Your task to perform on an android device: Open the map Image 0: 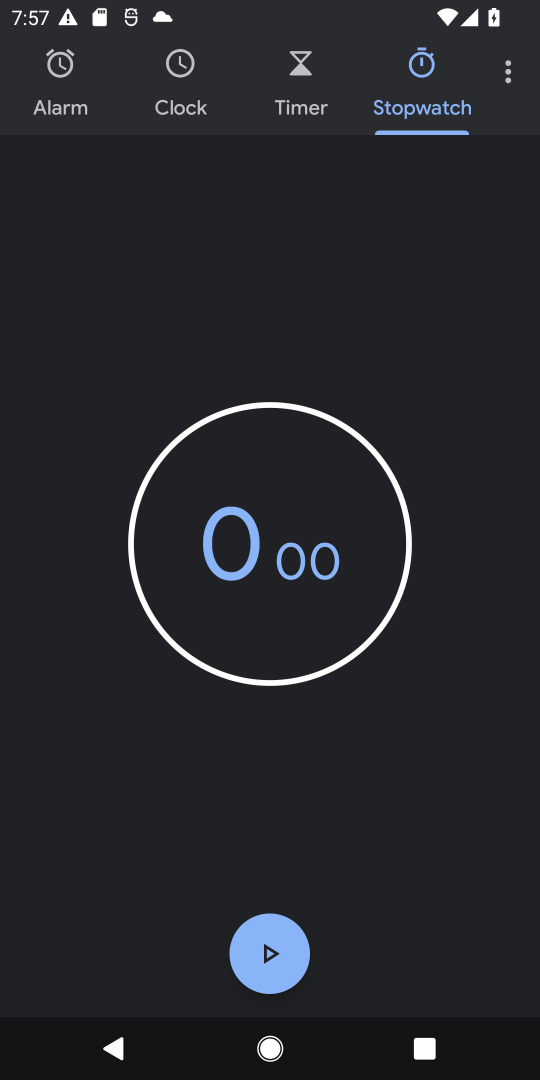
Step 0: press home button
Your task to perform on an android device: Open the map Image 1: 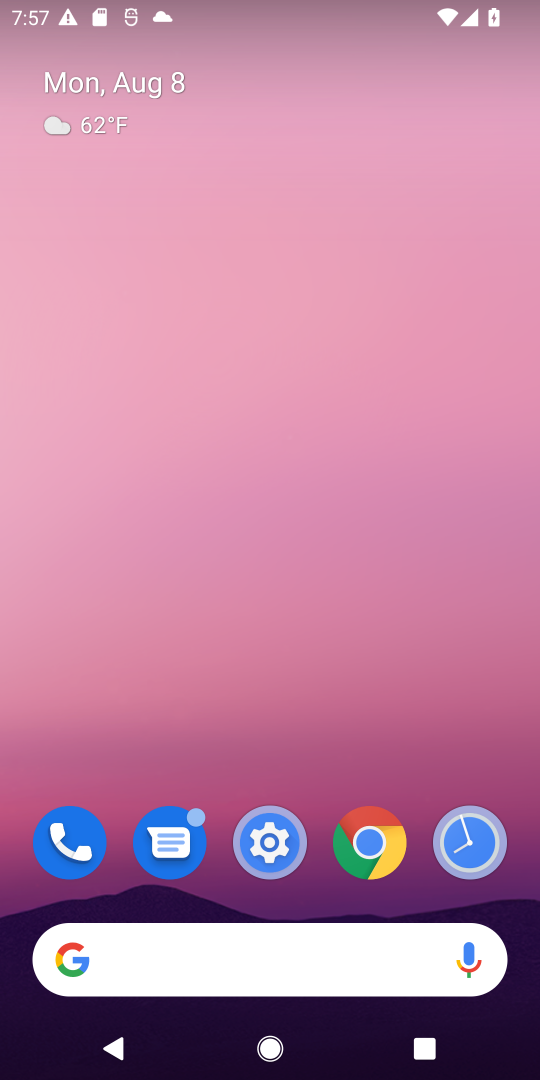
Step 1: drag from (271, 721) to (350, 0)
Your task to perform on an android device: Open the map Image 2: 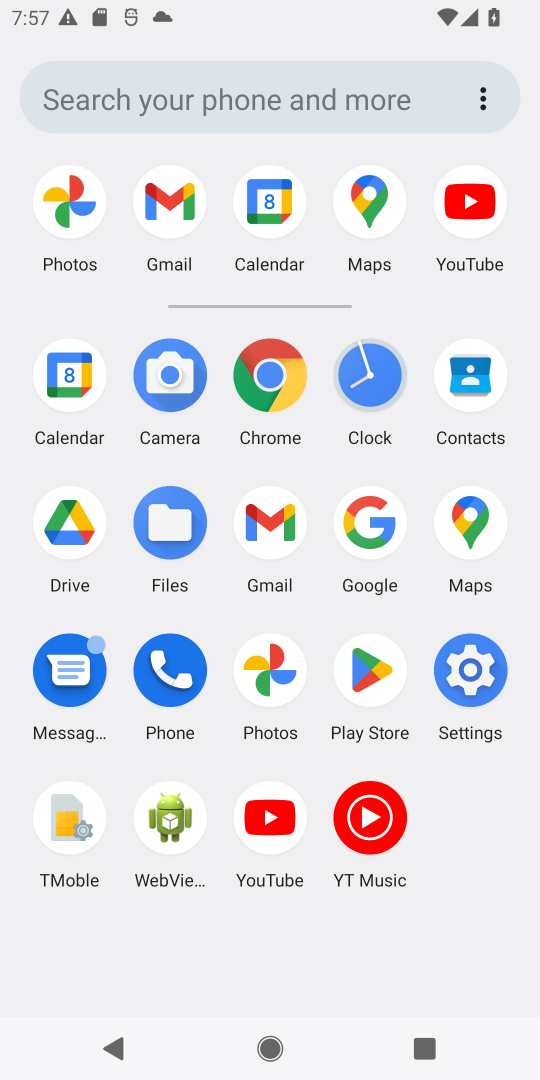
Step 2: click (363, 190)
Your task to perform on an android device: Open the map Image 3: 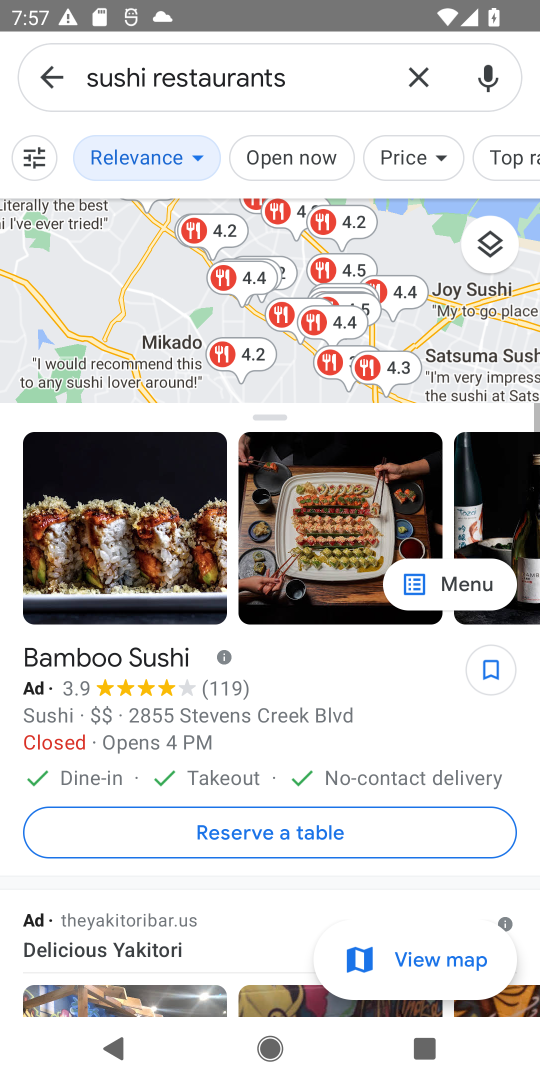
Step 3: click (411, 56)
Your task to perform on an android device: Open the map Image 4: 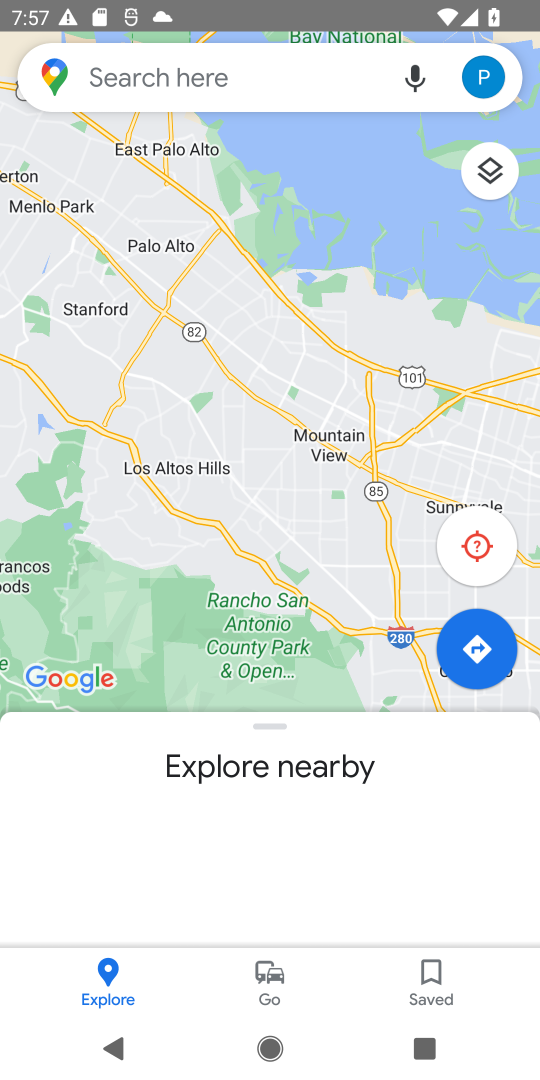
Step 4: task complete